Your task to perform on an android device: turn off location history Image 0: 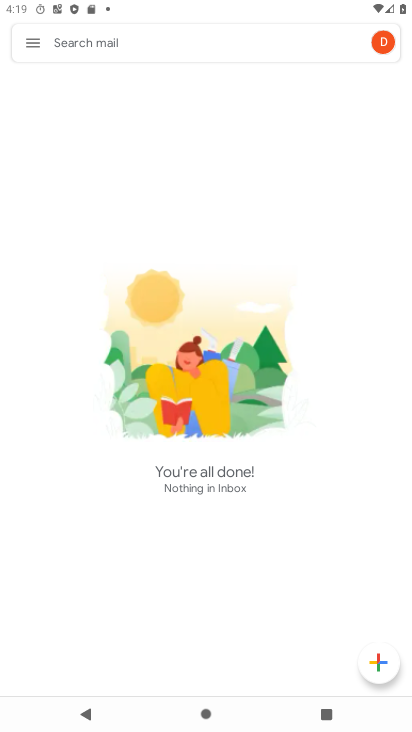
Step 0: press home button
Your task to perform on an android device: turn off location history Image 1: 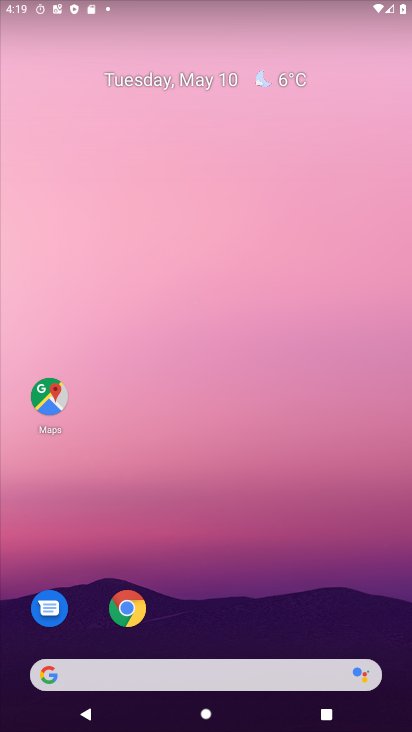
Step 1: click (50, 403)
Your task to perform on an android device: turn off location history Image 2: 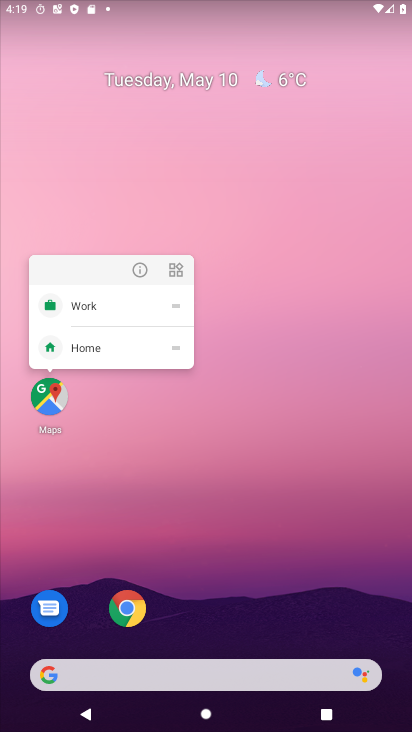
Step 2: click (50, 403)
Your task to perform on an android device: turn off location history Image 3: 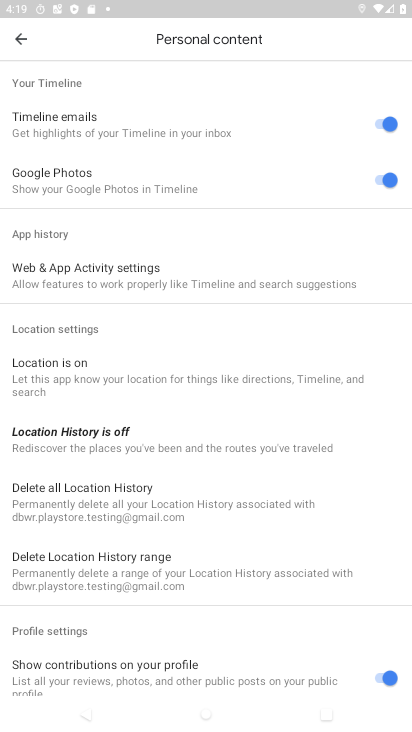
Step 3: click (81, 443)
Your task to perform on an android device: turn off location history Image 4: 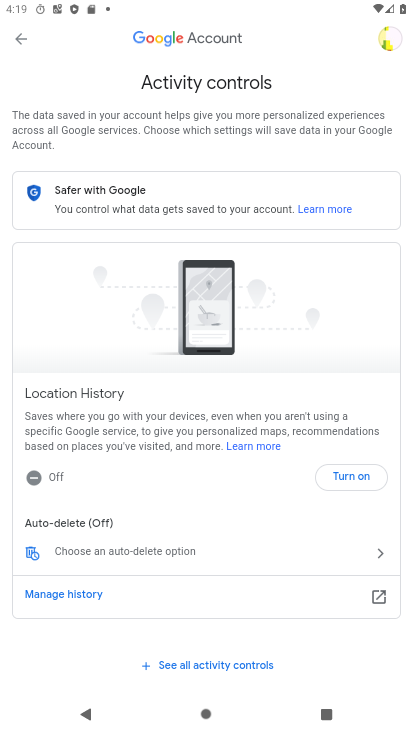
Step 4: task complete